Your task to perform on an android device: add a label to a message in the gmail app Image 0: 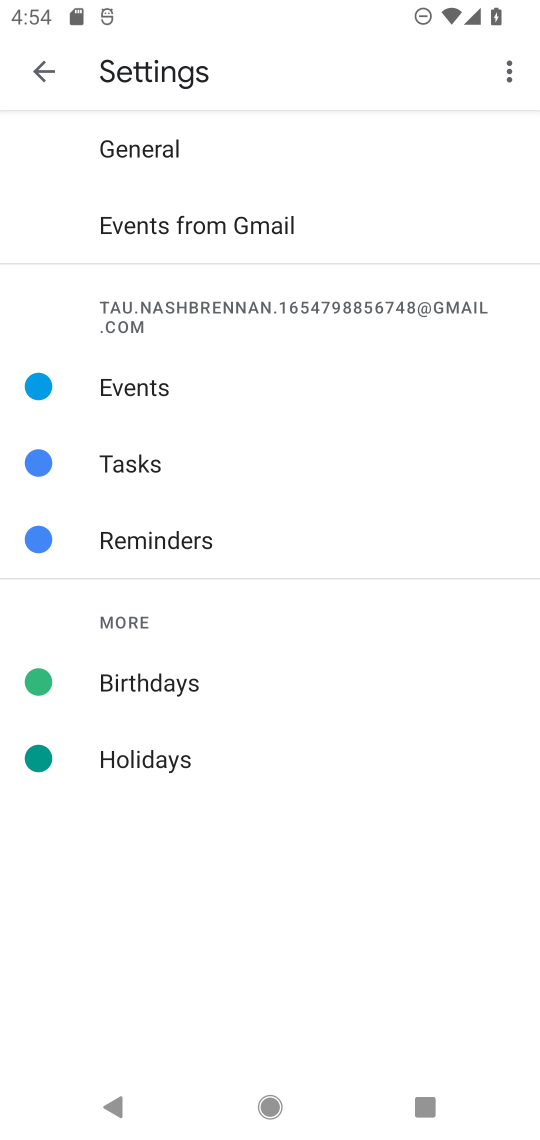
Step 0: press home button
Your task to perform on an android device: add a label to a message in the gmail app Image 1: 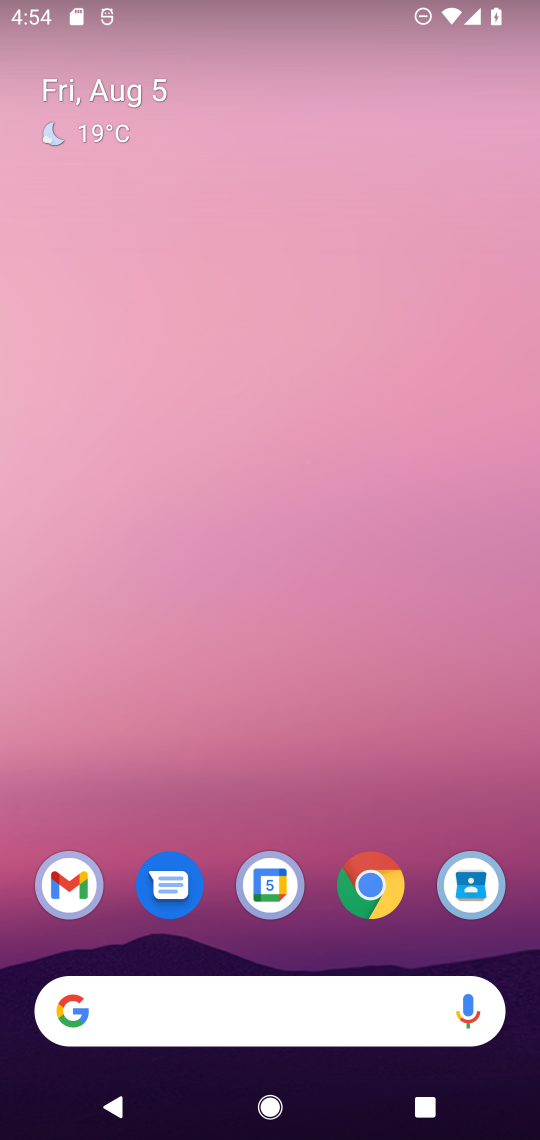
Step 1: drag from (321, 945) to (336, 86)
Your task to perform on an android device: add a label to a message in the gmail app Image 2: 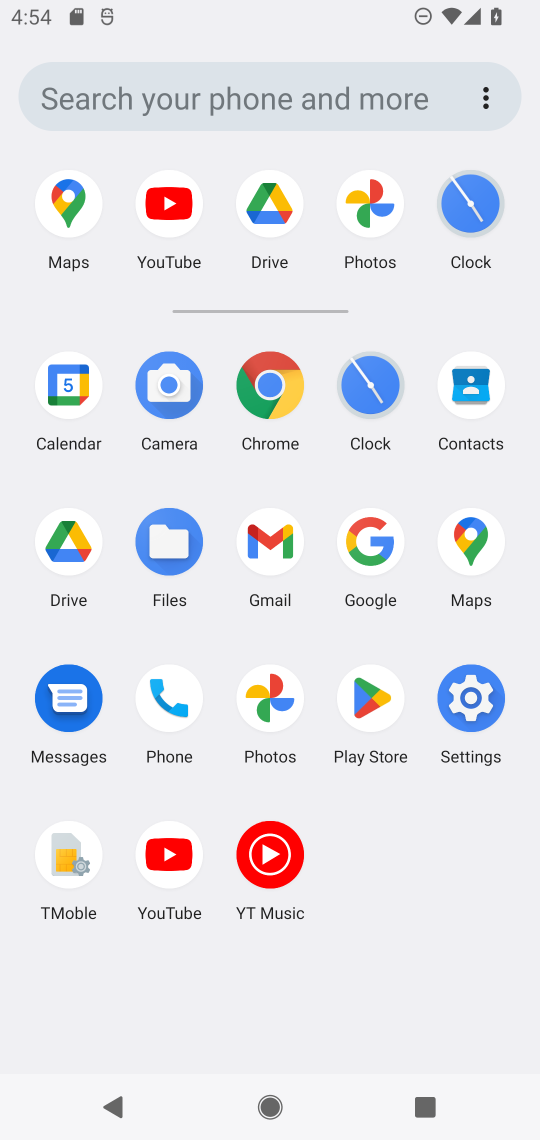
Step 2: click (270, 553)
Your task to perform on an android device: add a label to a message in the gmail app Image 3: 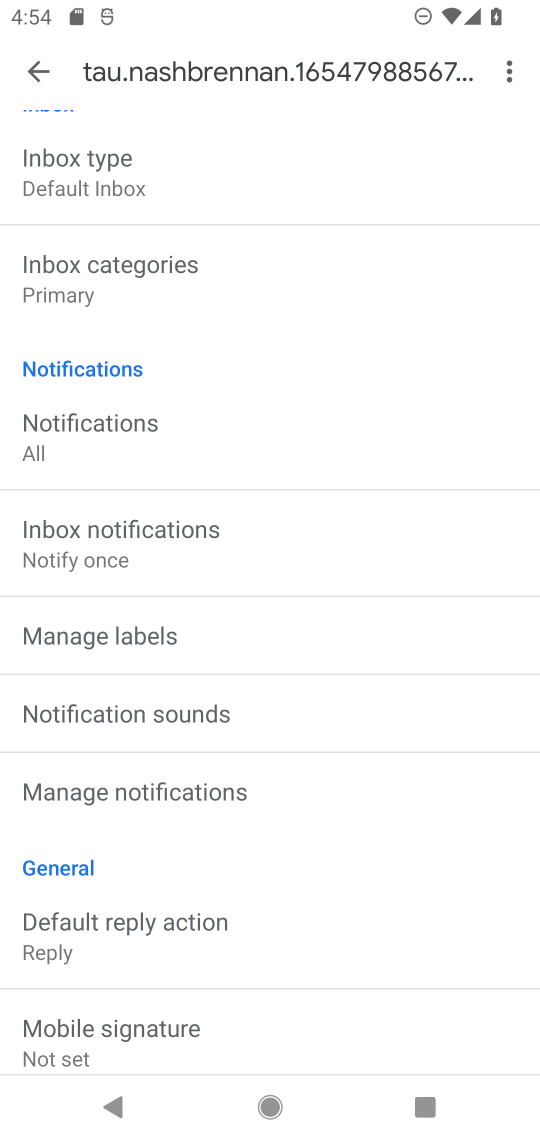
Step 3: click (38, 62)
Your task to perform on an android device: add a label to a message in the gmail app Image 4: 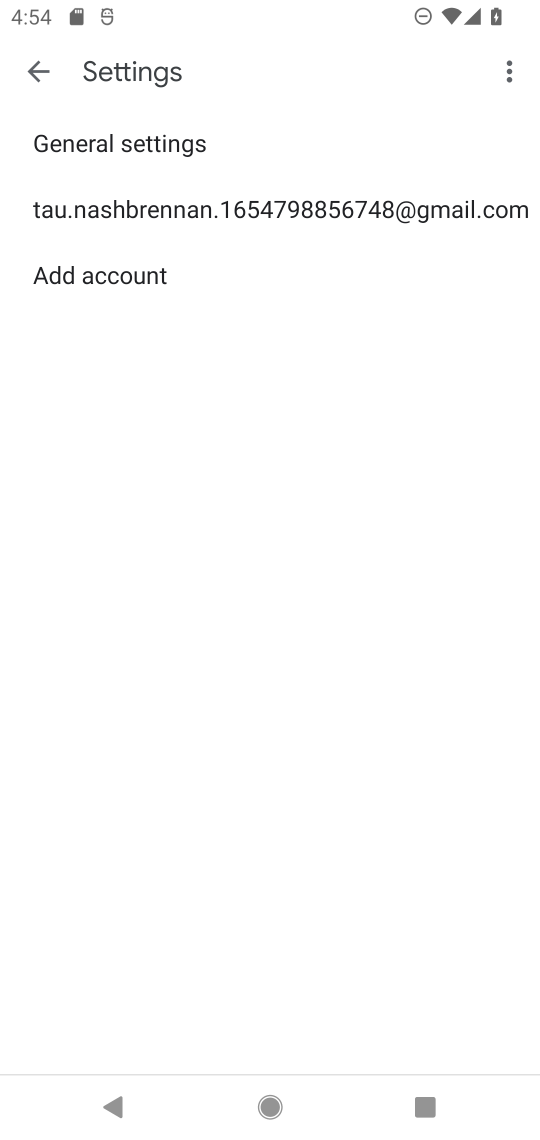
Step 4: click (38, 62)
Your task to perform on an android device: add a label to a message in the gmail app Image 5: 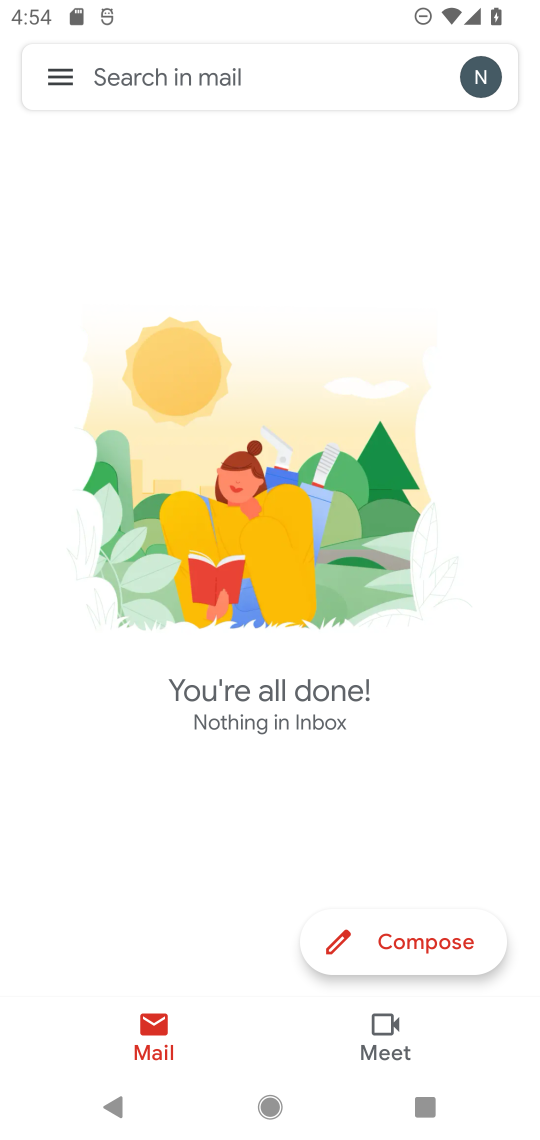
Step 5: task complete